Your task to perform on an android device: Show me productivity apps on the Play Store Image 0: 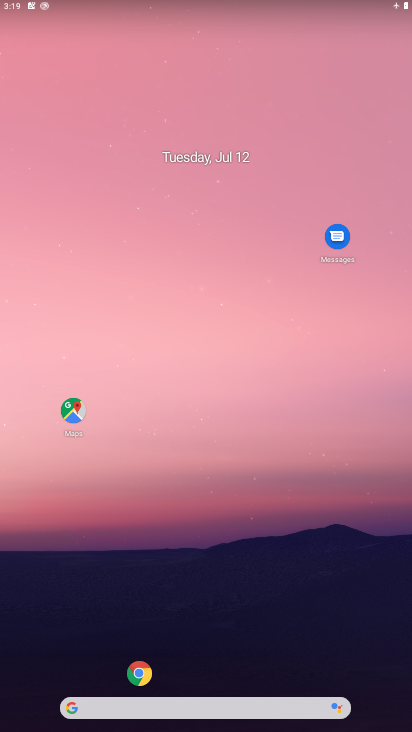
Step 0: drag from (38, 679) to (204, 173)
Your task to perform on an android device: Show me productivity apps on the Play Store Image 1: 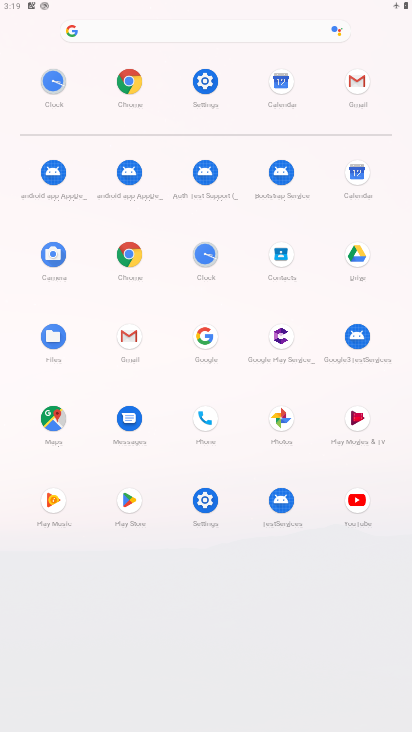
Step 1: click (135, 500)
Your task to perform on an android device: Show me productivity apps on the Play Store Image 2: 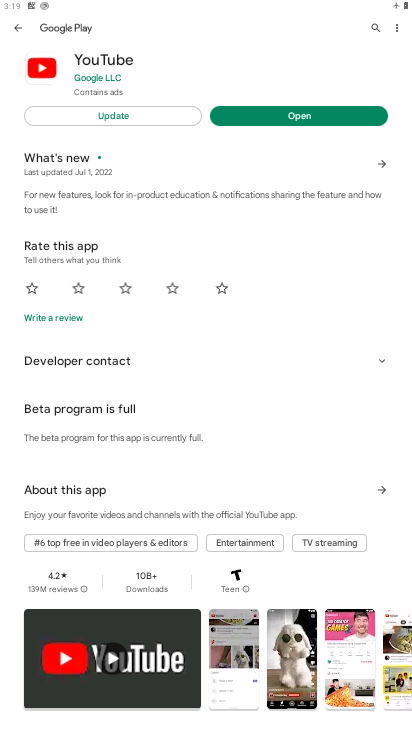
Step 2: click (13, 28)
Your task to perform on an android device: Show me productivity apps on the Play Store Image 3: 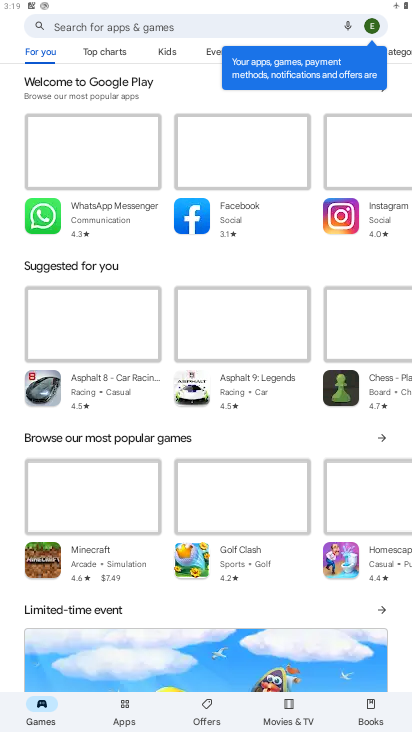
Step 3: click (85, 18)
Your task to perform on an android device: Show me productivity apps on the Play Store Image 4: 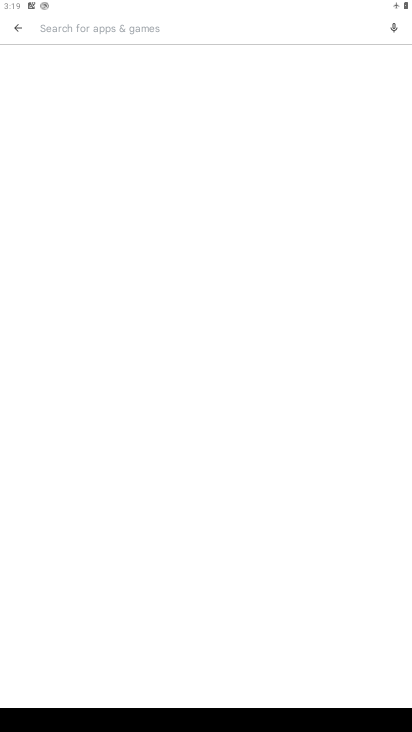
Step 4: type "productivity apps"
Your task to perform on an android device: Show me productivity apps on the Play Store Image 5: 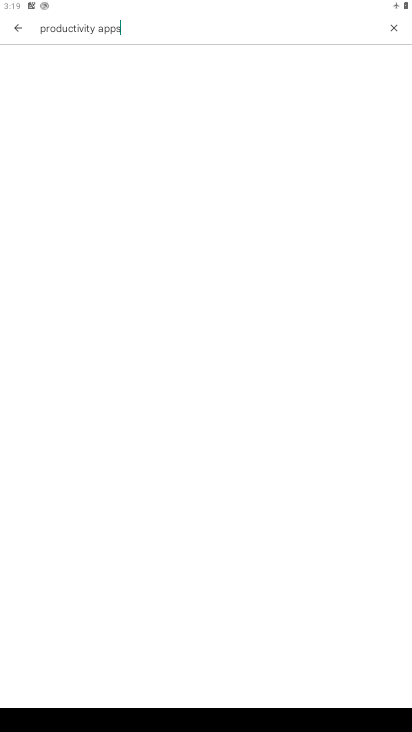
Step 5: type ""
Your task to perform on an android device: Show me productivity apps on the Play Store Image 6: 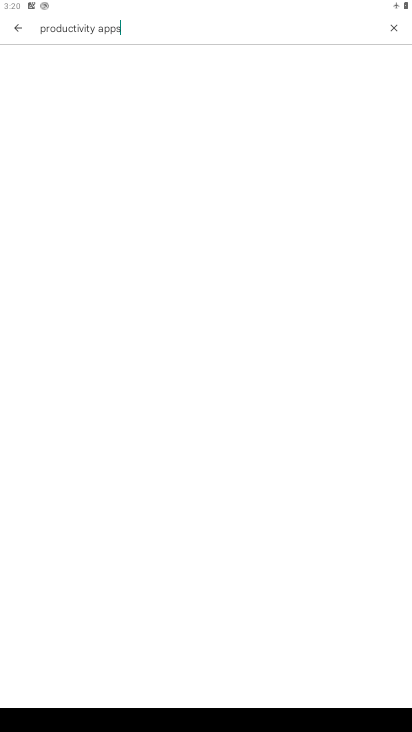
Step 6: type ""
Your task to perform on an android device: Show me productivity apps on the Play Store Image 7: 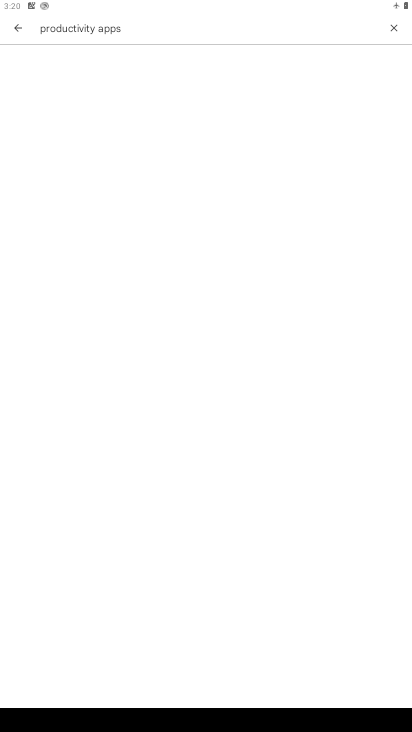
Step 7: type ""
Your task to perform on an android device: Show me productivity apps on the Play Store Image 8: 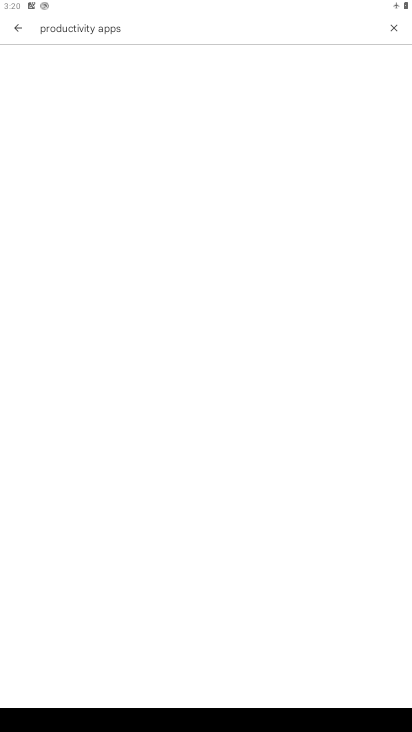
Step 8: click (160, 29)
Your task to perform on an android device: Show me productivity apps on the Play Store Image 9: 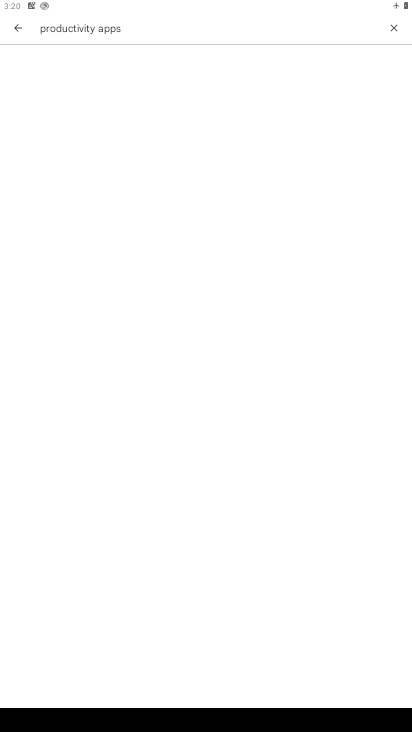
Step 9: task complete